Your task to perform on an android device: open app "Booking.com: Hotels and more" Image 0: 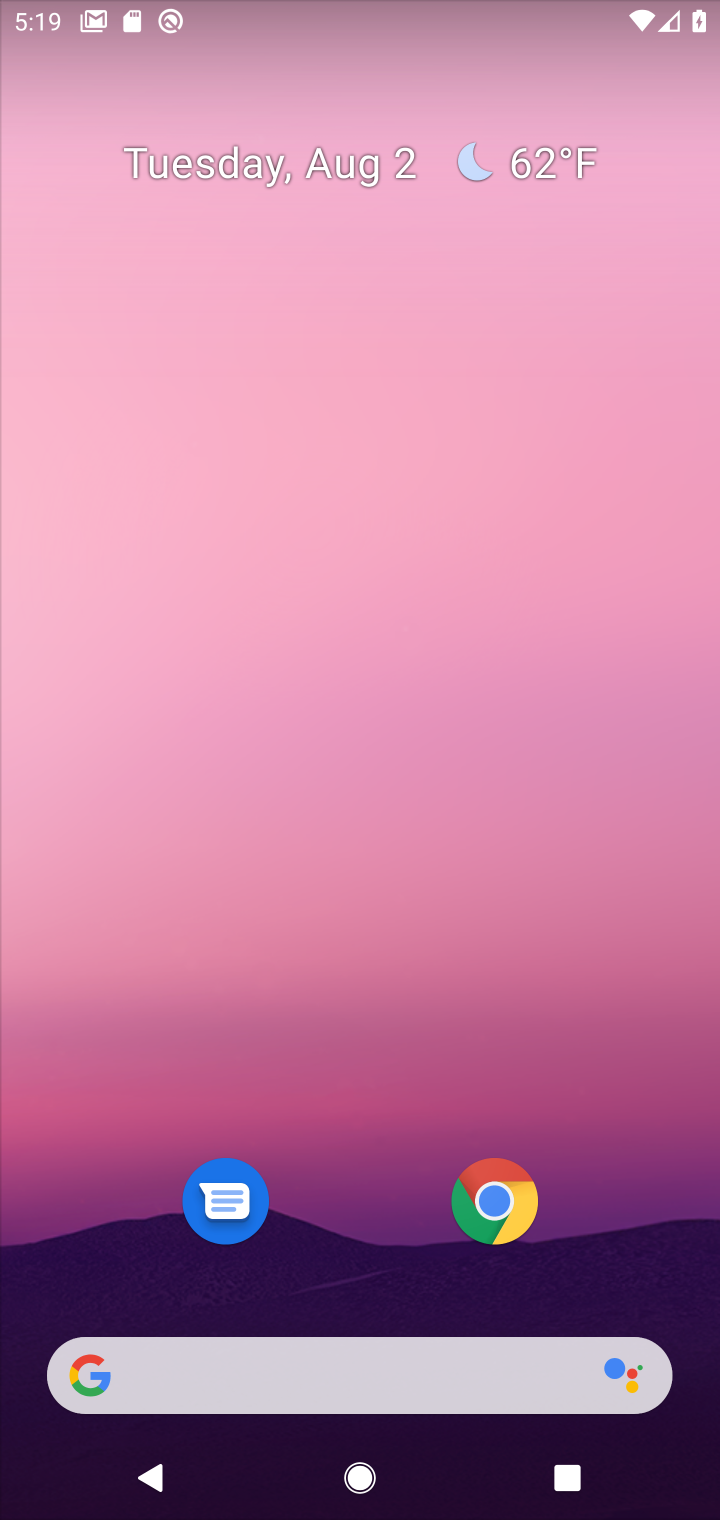
Step 0: drag from (371, 1178) to (141, 497)
Your task to perform on an android device: open app "Booking.com: Hotels and more" Image 1: 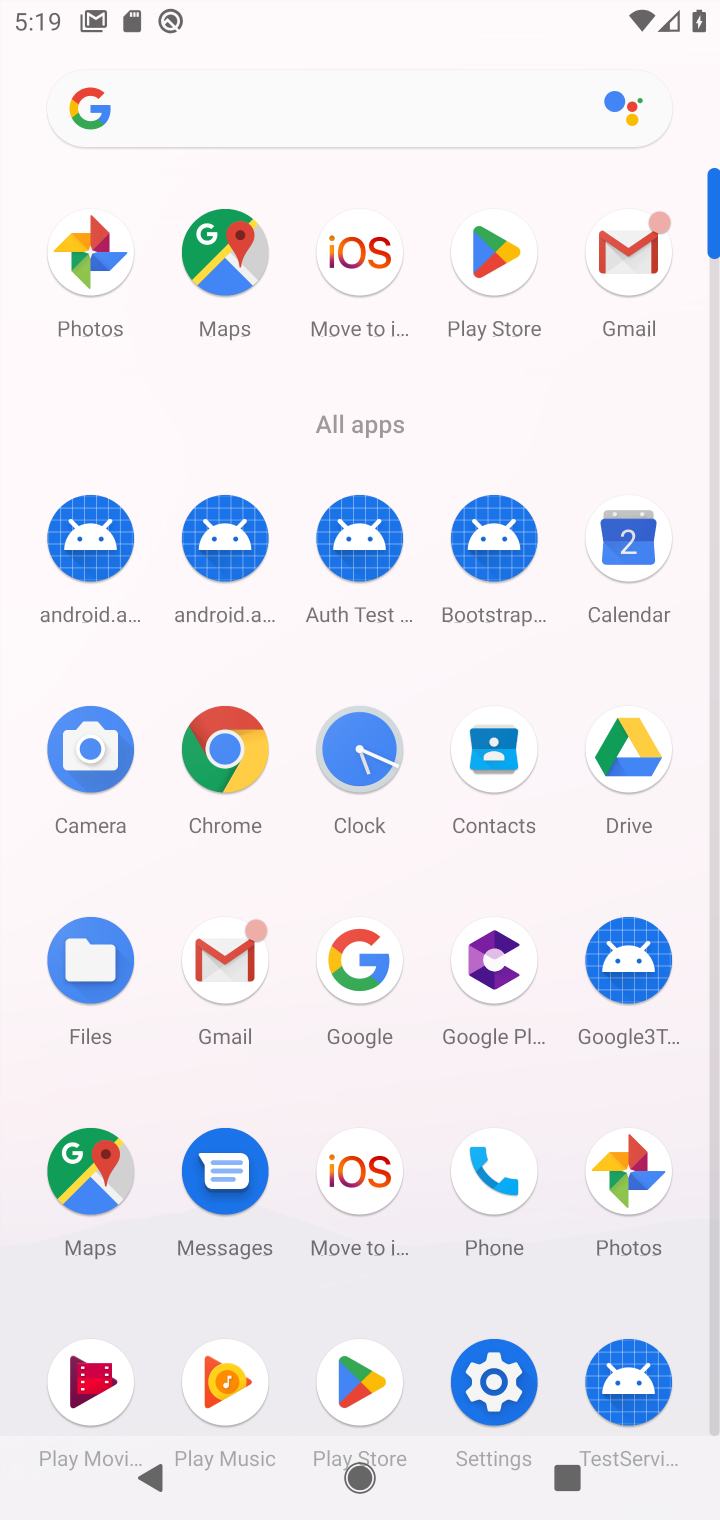
Step 1: click (493, 239)
Your task to perform on an android device: open app "Booking.com: Hotels and more" Image 2: 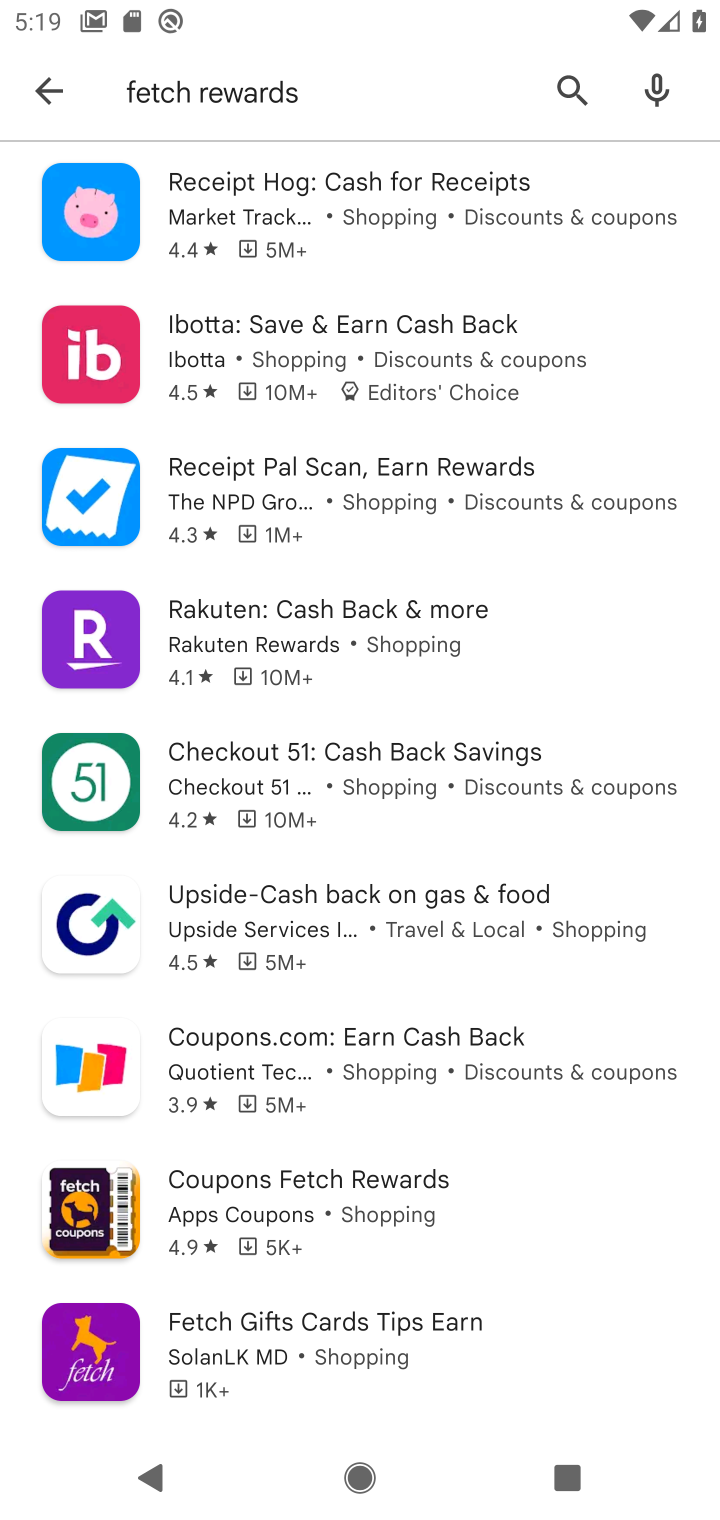
Step 2: click (579, 75)
Your task to perform on an android device: open app "Booking.com: Hotels and more" Image 3: 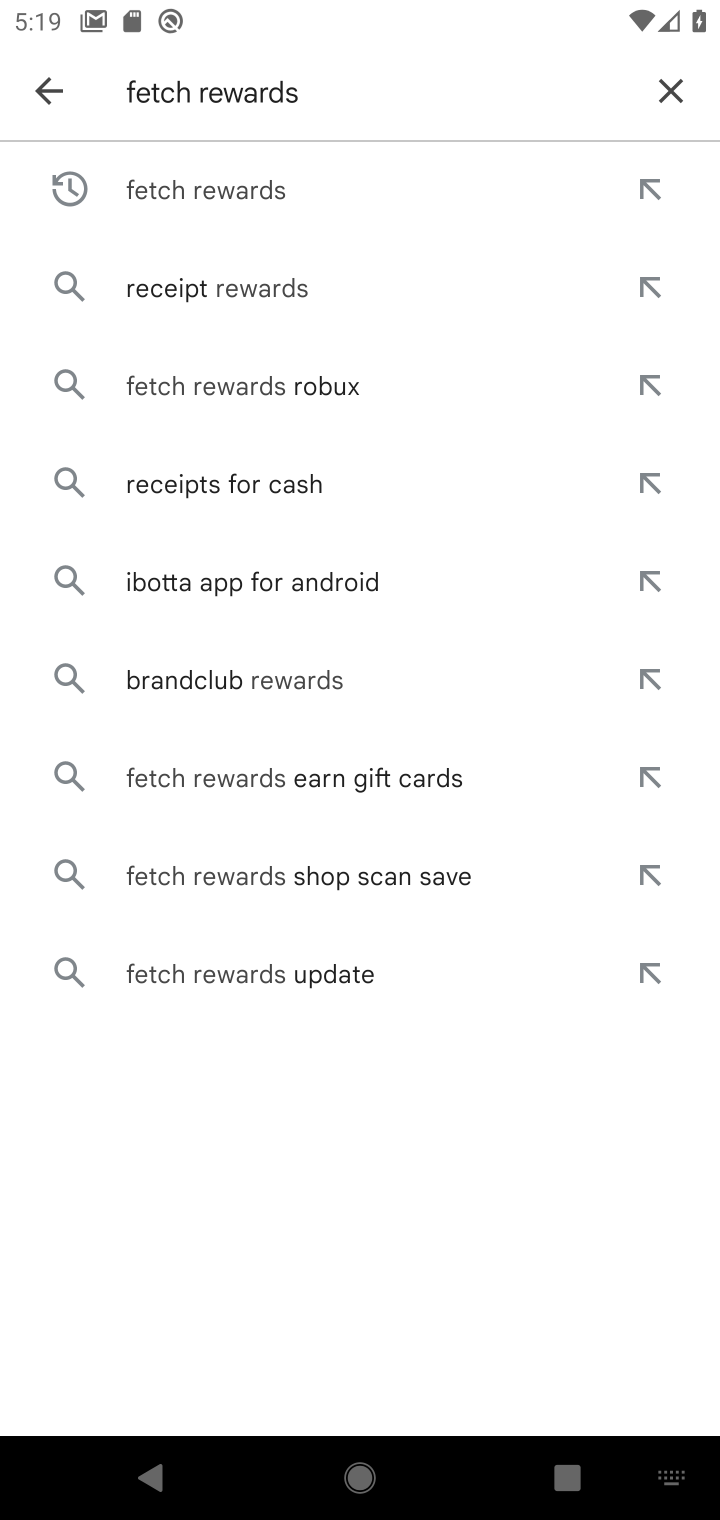
Step 3: click (680, 84)
Your task to perform on an android device: open app "Booking.com: Hotels and more" Image 4: 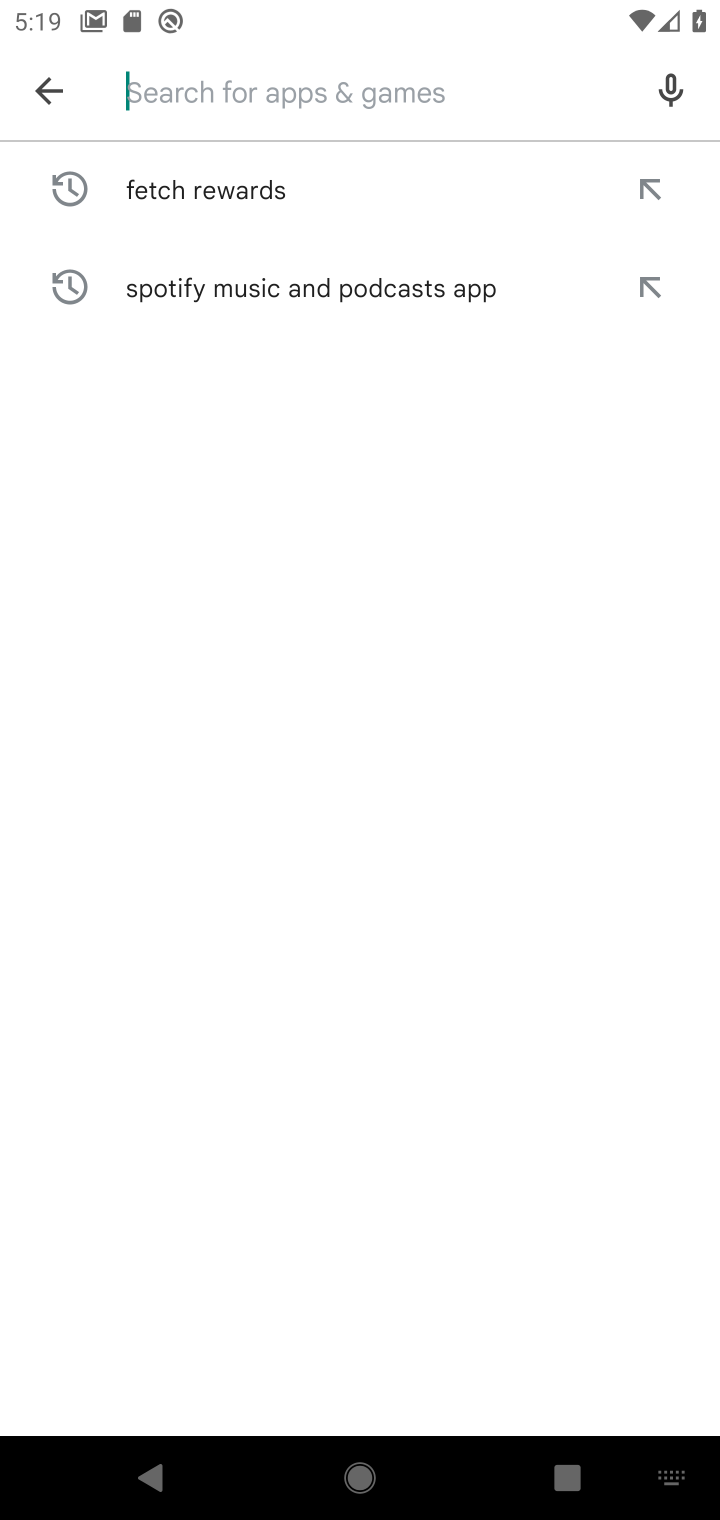
Step 4: type "Booking.com: Hotels and more"
Your task to perform on an android device: open app "Booking.com: Hotels and more" Image 5: 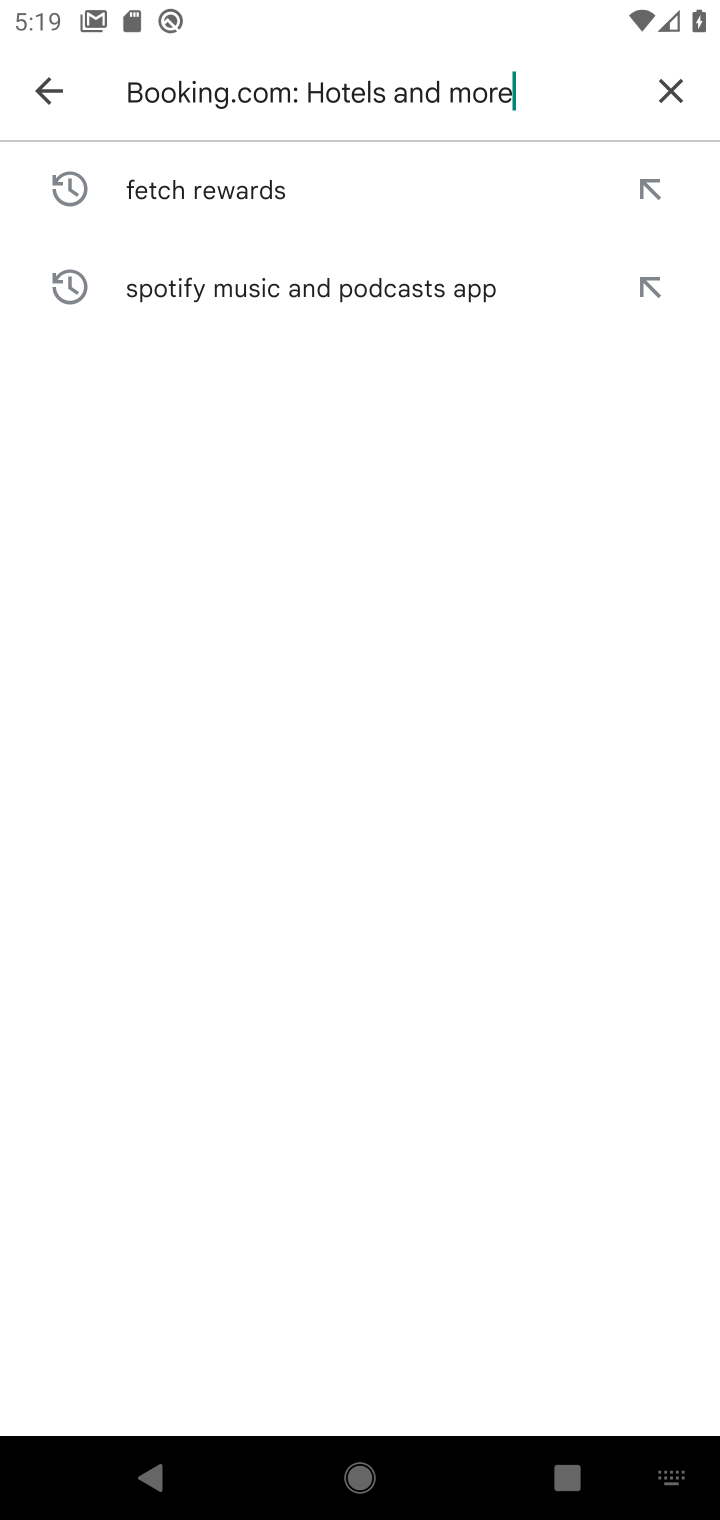
Step 5: type ""
Your task to perform on an android device: open app "Booking.com: Hotels and more" Image 6: 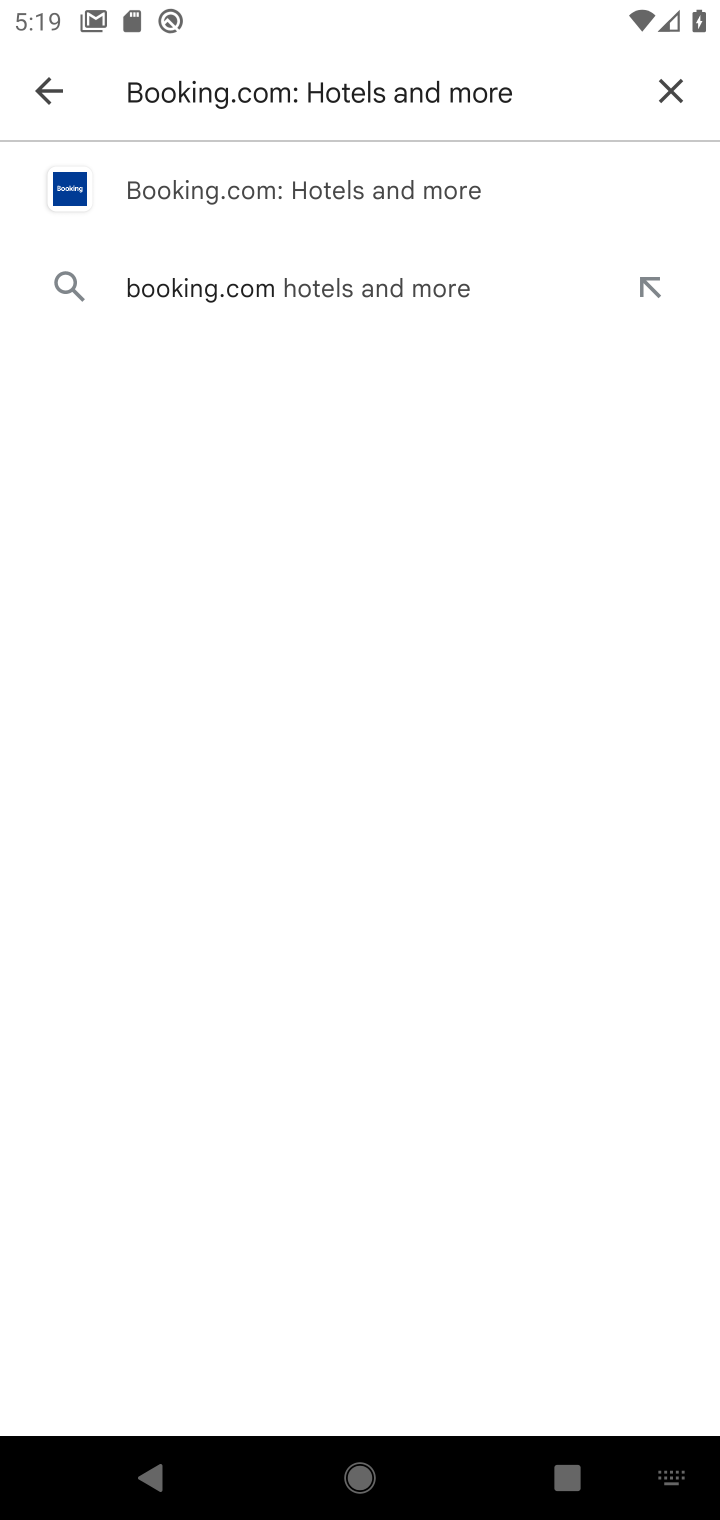
Step 6: click (419, 188)
Your task to perform on an android device: open app "Booking.com: Hotels and more" Image 7: 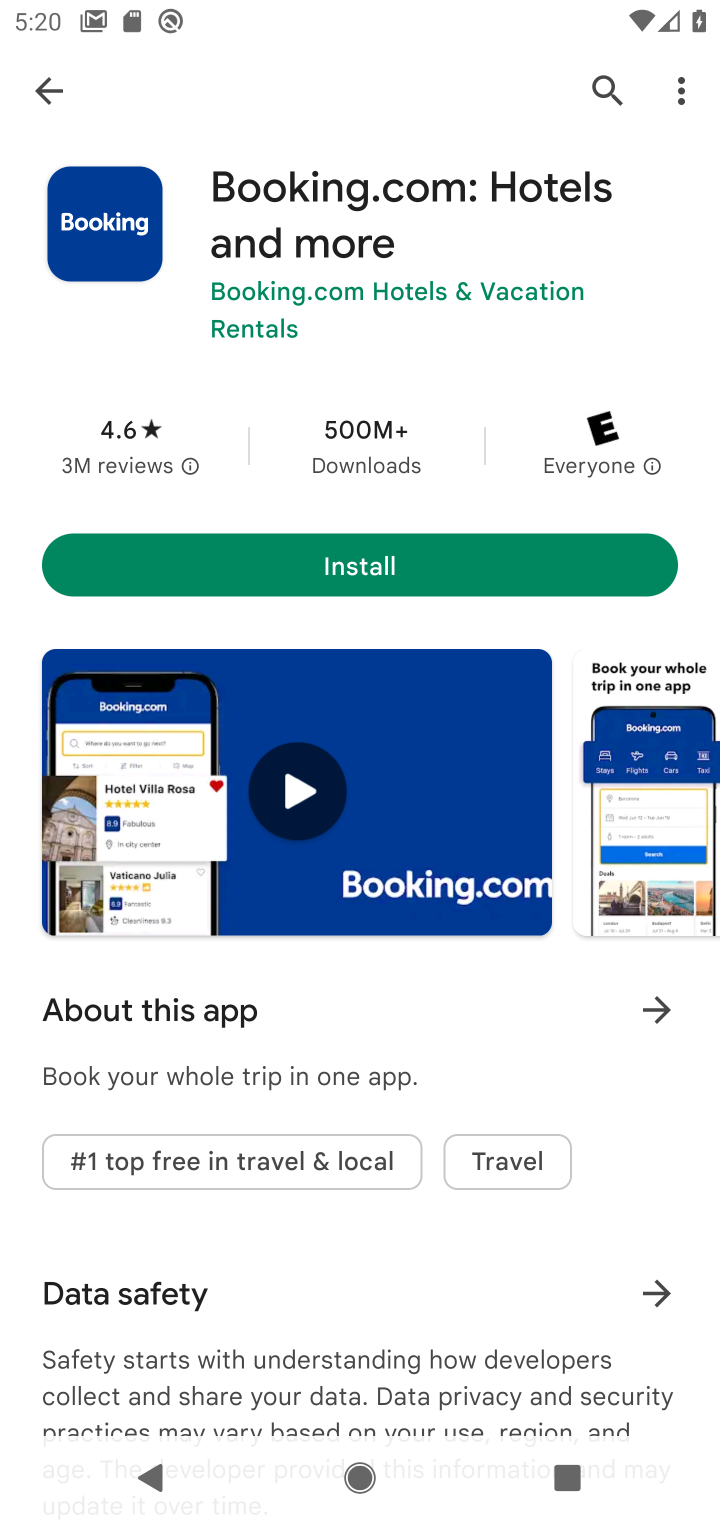
Step 7: task complete